Your task to perform on an android device: turn notification dots on Image 0: 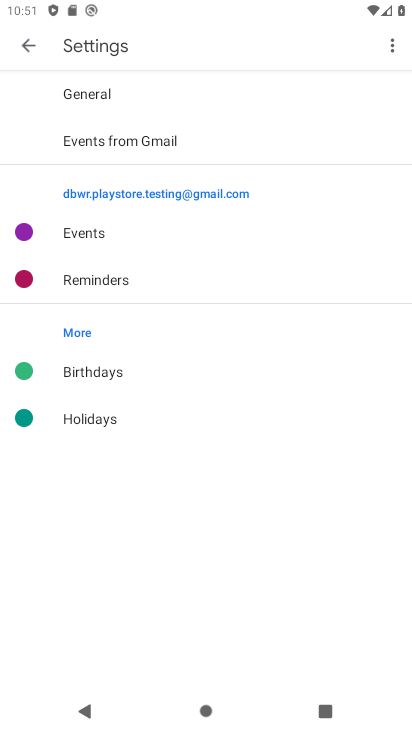
Step 0: press home button
Your task to perform on an android device: turn notification dots on Image 1: 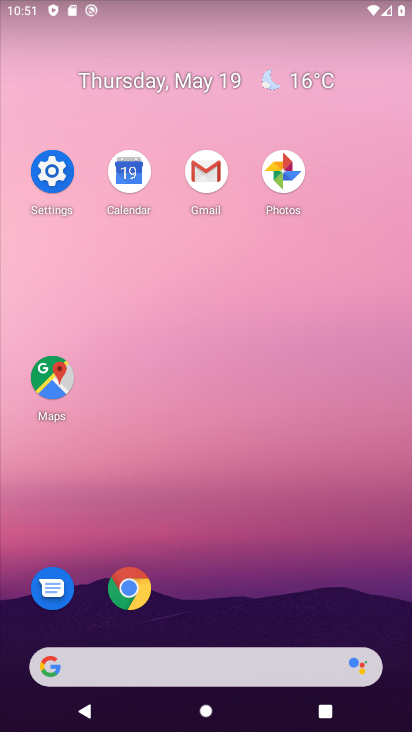
Step 1: click (61, 182)
Your task to perform on an android device: turn notification dots on Image 2: 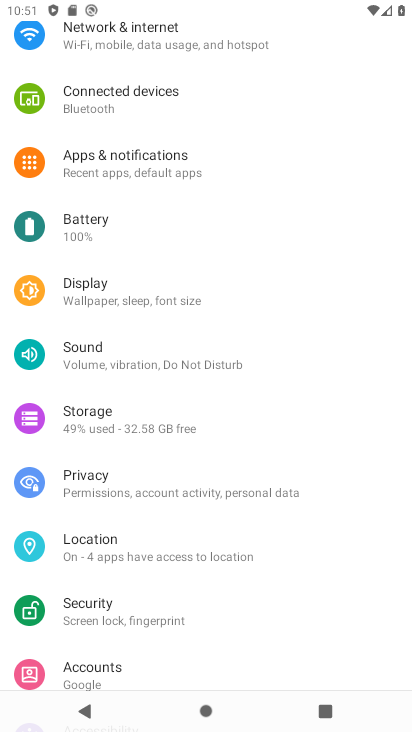
Step 2: click (141, 173)
Your task to perform on an android device: turn notification dots on Image 3: 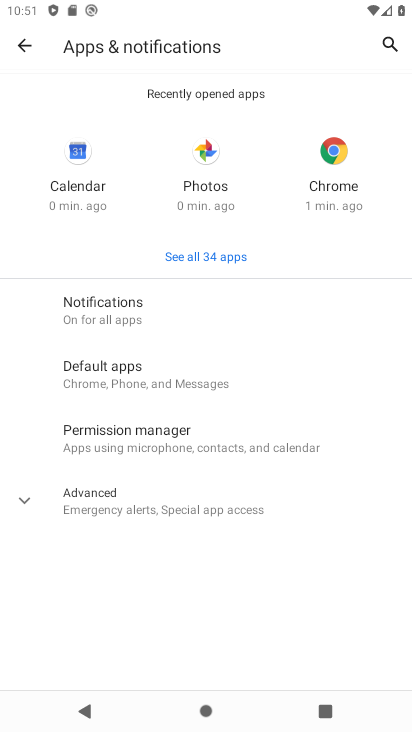
Step 3: click (124, 331)
Your task to perform on an android device: turn notification dots on Image 4: 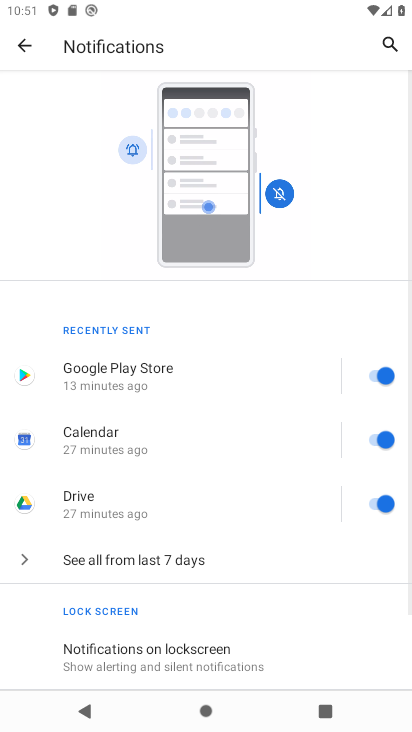
Step 4: drag from (124, 576) to (229, 145)
Your task to perform on an android device: turn notification dots on Image 5: 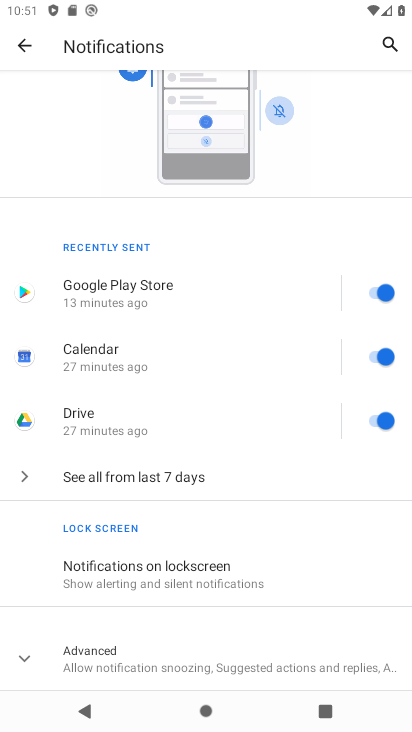
Step 5: click (105, 672)
Your task to perform on an android device: turn notification dots on Image 6: 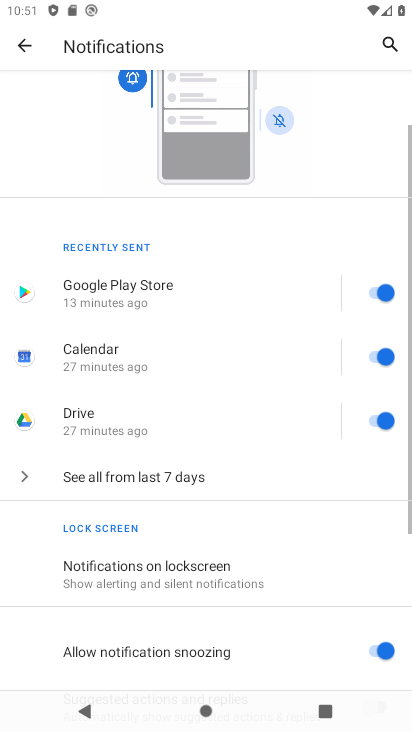
Step 6: drag from (171, 581) to (244, 159)
Your task to perform on an android device: turn notification dots on Image 7: 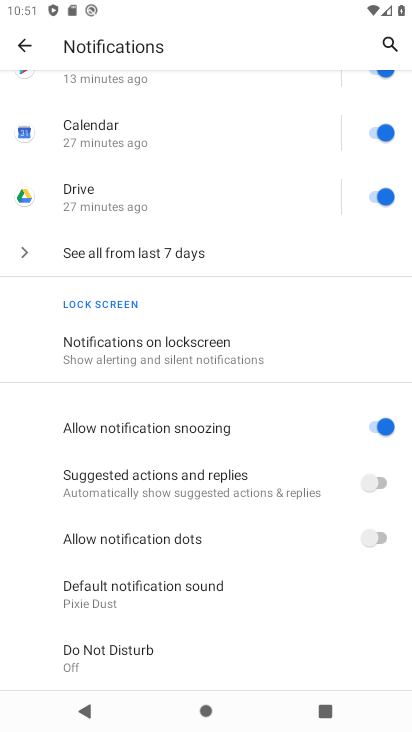
Step 7: click (379, 538)
Your task to perform on an android device: turn notification dots on Image 8: 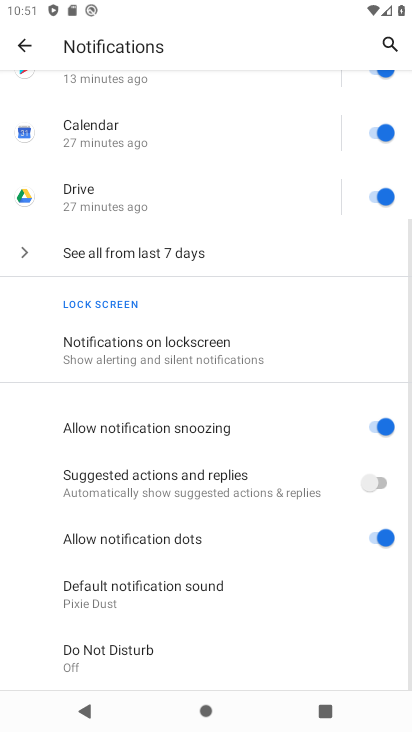
Step 8: task complete